Your task to perform on an android device: find photos in the google photos app Image 0: 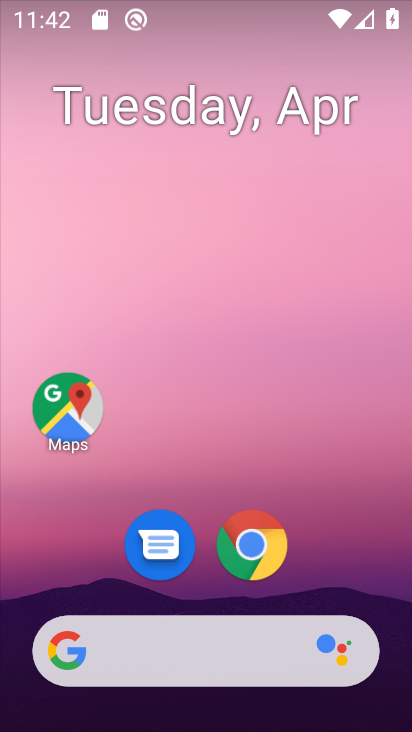
Step 0: drag from (336, 268) to (331, 14)
Your task to perform on an android device: find photos in the google photos app Image 1: 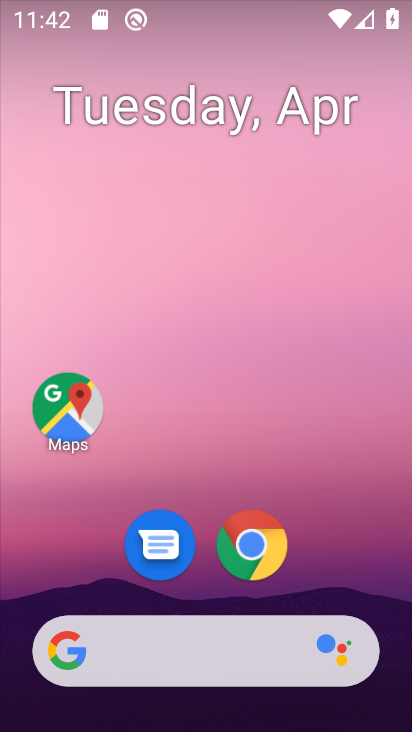
Step 1: drag from (330, 510) to (314, 18)
Your task to perform on an android device: find photos in the google photos app Image 2: 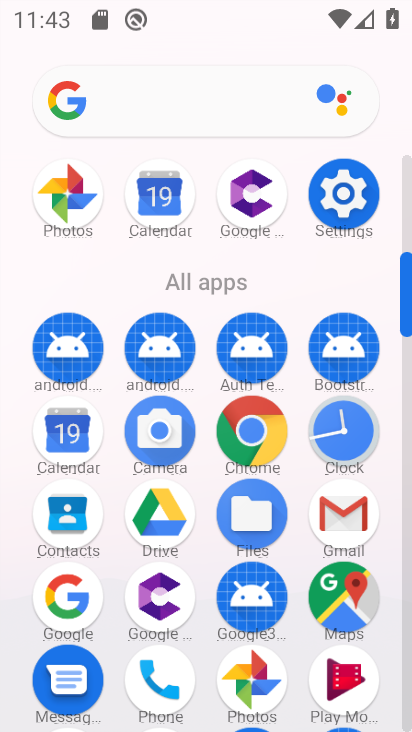
Step 2: click (89, 189)
Your task to perform on an android device: find photos in the google photos app Image 3: 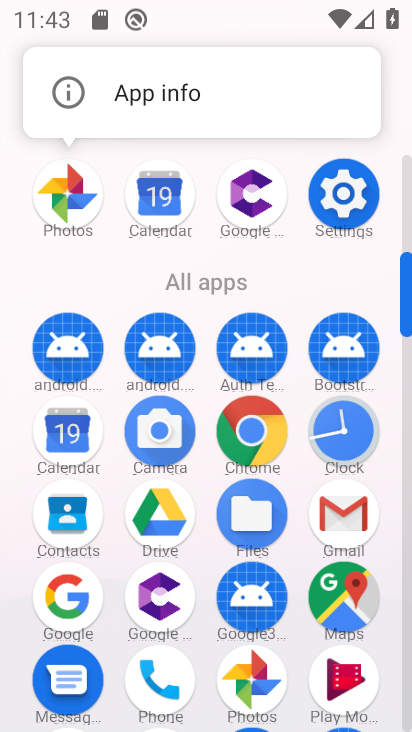
Step 3: click (71, 209)
Your task to perform on an android device: find photos in the google photos app Image 4: 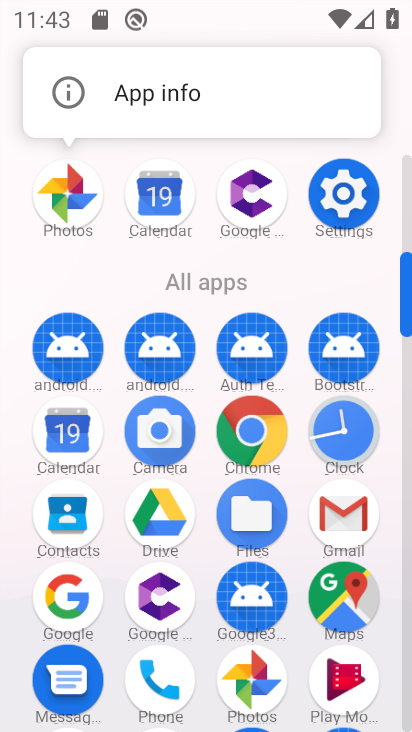
Step 4: click (76, 206)
Your task to perform on an android device: find photos in the google photos app Image 5: 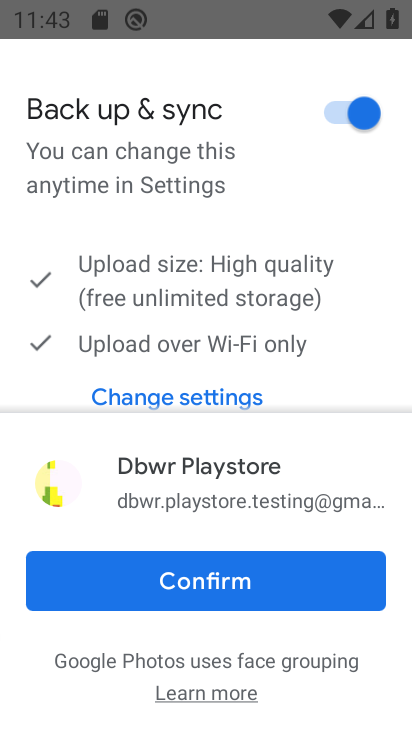
Step 5: click (208, 583)
Your task to perform on an android device: find photos in the google photos app Image 6: 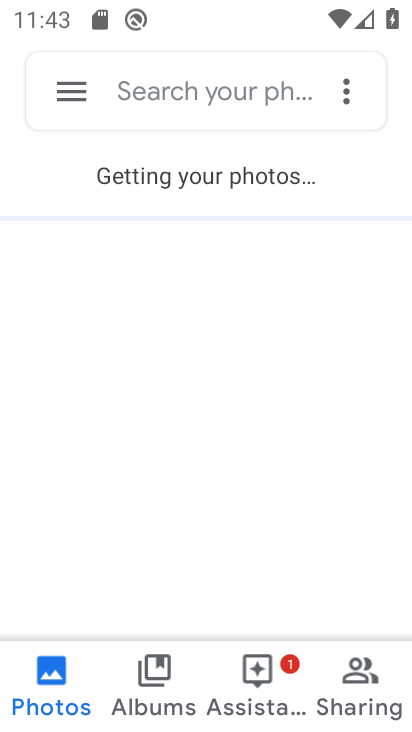
Step 6: click (160, 258)
Your task to perform on an android device: find photos in the google photos app Image 7: 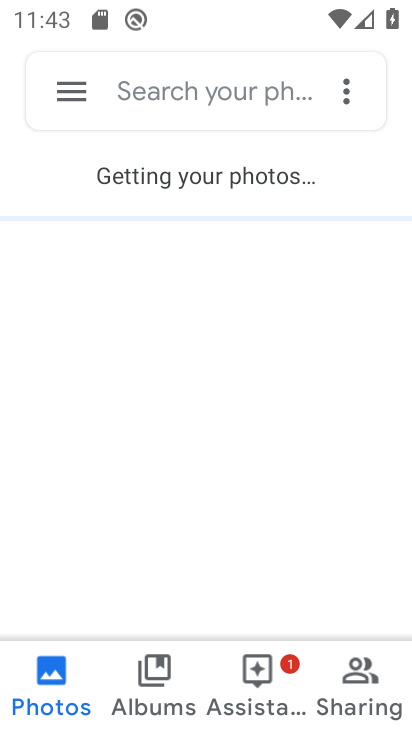
Step 7: click (173, 700)
Your task to perform on an android device: find photos in the google photos app Image 8: 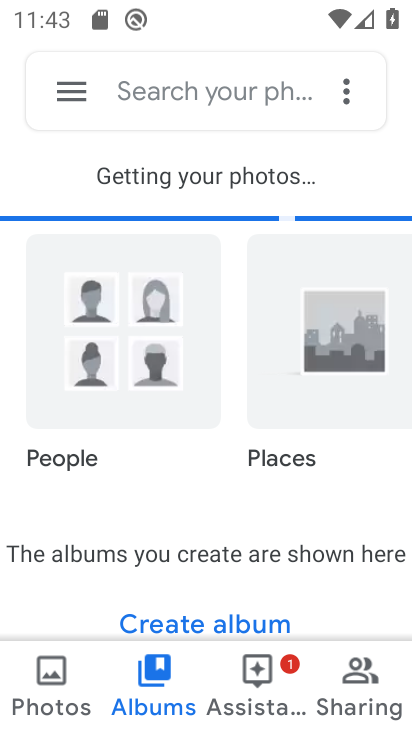
Step 8: click (43, 694)
Your task to perform on an android device: find photos in the google photos app Image 9: 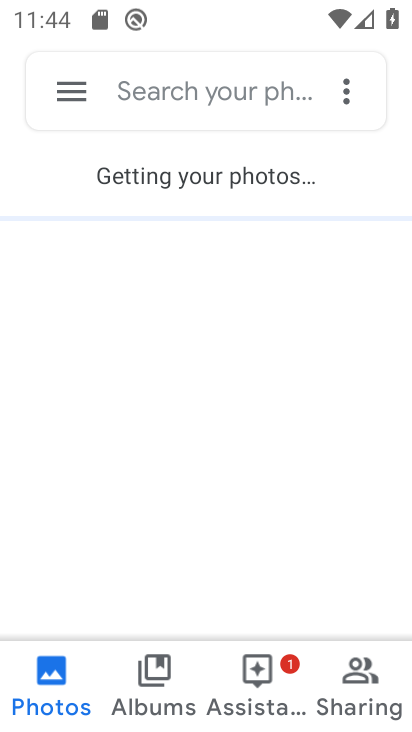
Step 9: task complete